Your task to perform on an android device: open sync settings in chrome Image 0: 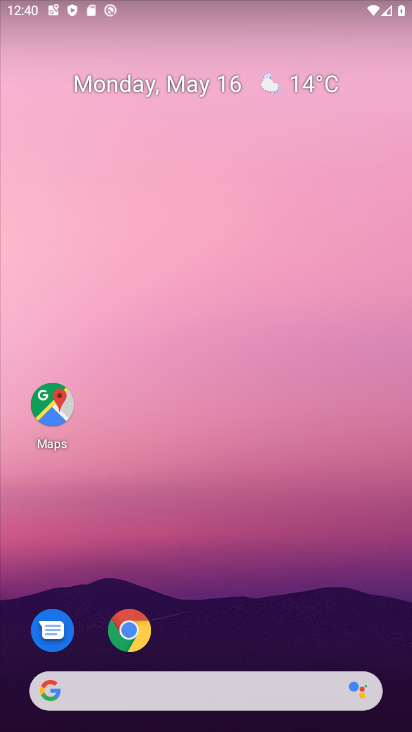
Step 0: click (135, 639)
Your task to perform on an android device: open sync settings in chrome Image 1: 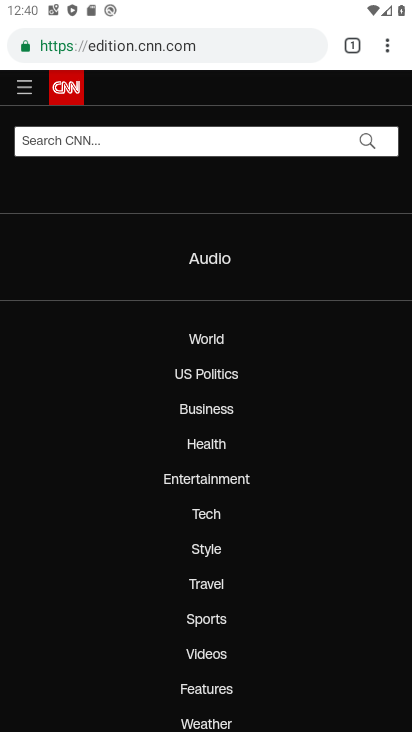
Step 1: click (387, 51)
Your task to perform on an android device: open sync settings in chrome Image 2: 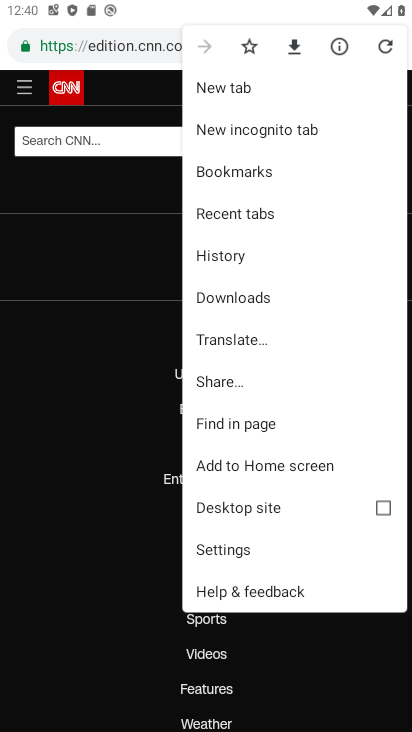
Step 2: click (263, 550)
Your task to perform on an android device: open sync settings in chrome Image 3: 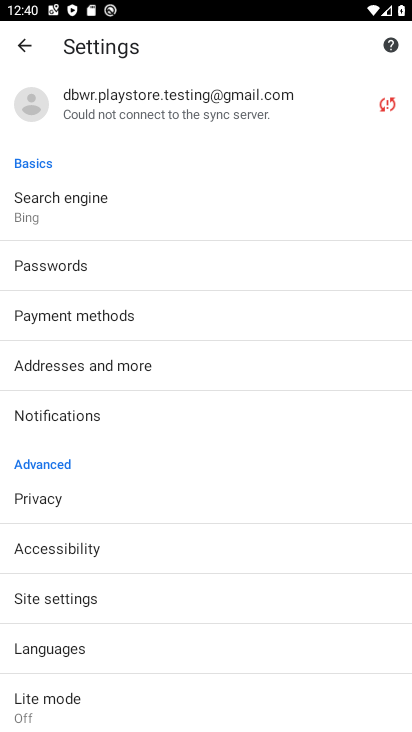
Step 3: click (99, 114)
Your task to perform on an android device: open sync settings in chrome Image 4: 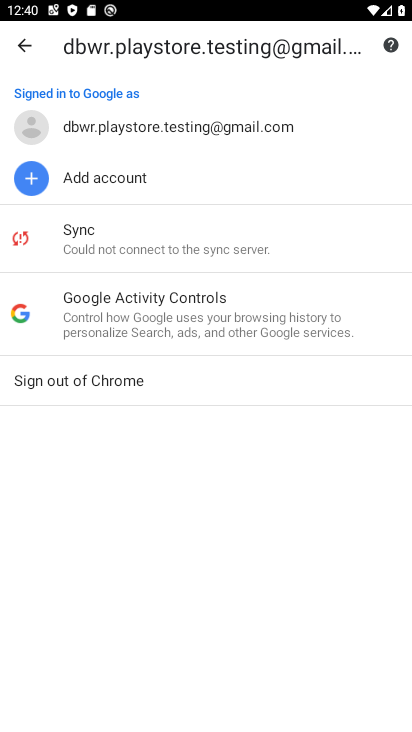
Step 4: click (107, 242)
Your task to perform on an android device: open sync settings in chrome Image 5: 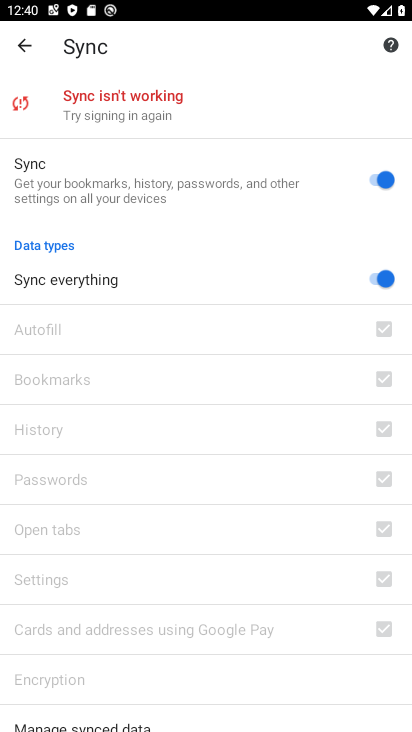
Step 5: task complete